Your task to perform on an android device: Open Google Chrome and click the shortcut for Amazon.com Image 0: 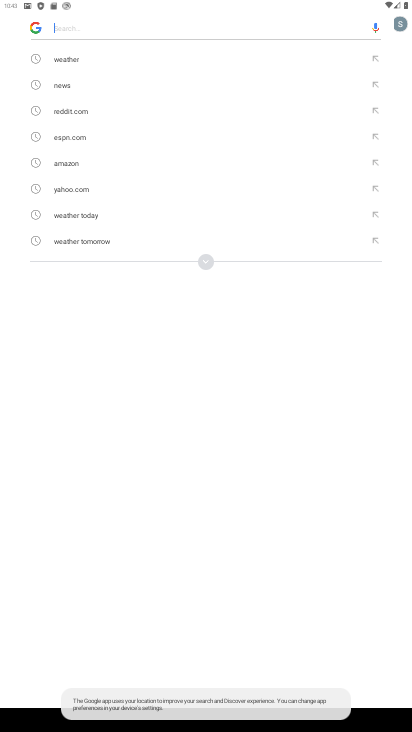
Step 0: press home button
Your task to perform on an android device: Open Google Chrome and click the shortcut for Amazon.com Image 1: 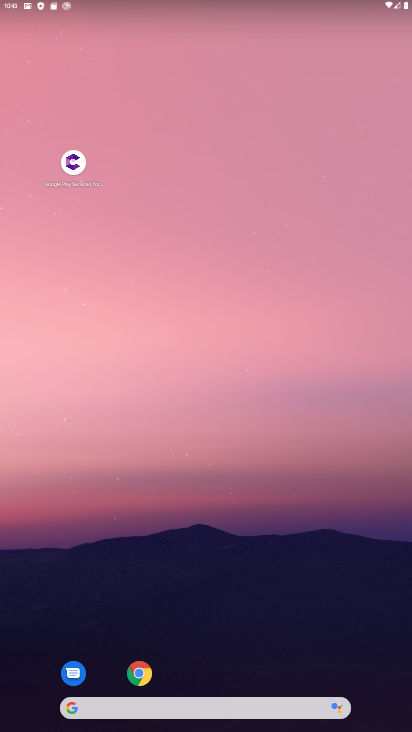
Step 1: drag from (266, 506) to (200, 1)
Your task to perform on an android device: Open Google Chrome and click the shortcut for Amazon.com Image 2: 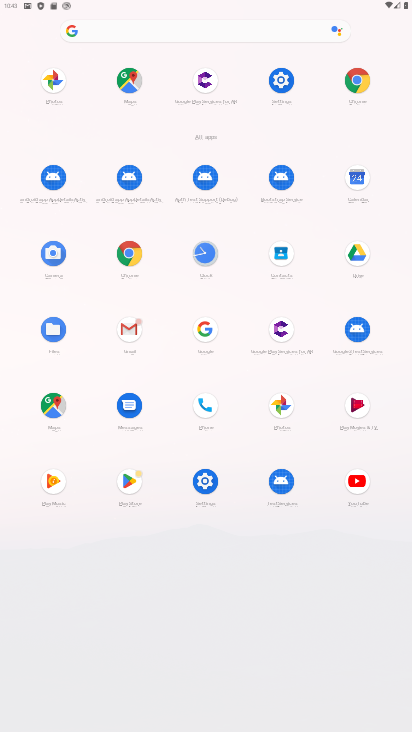
Step 2: click (367, 74)
Your task to perform on an android device: Open Google Chrome and click the shortcut for Amazon.com Image 3: 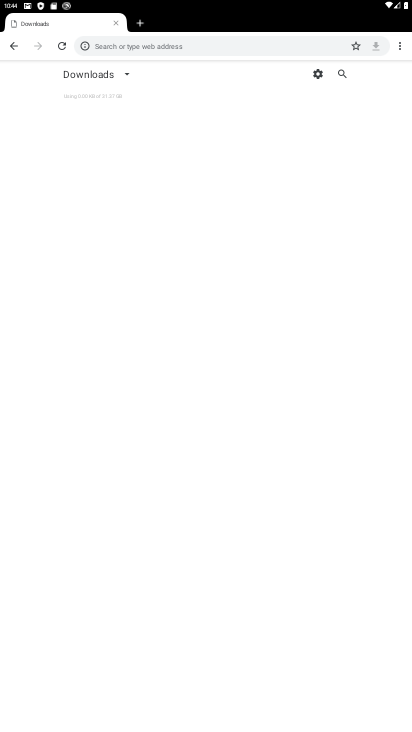
Step 3: click (8, 52)
Your task to perform on an android device: Open Google Chrome and click the shortcut for Amazon.com Image 4: 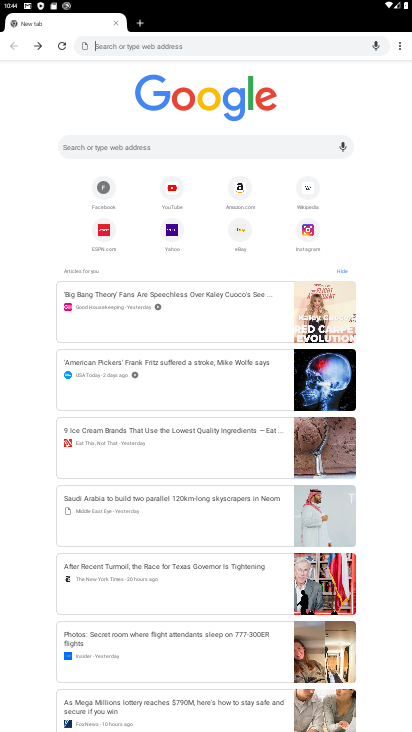
Step 4: click (227, 194)
Your task to perform on an android device: Open Google Chrome and click the shortcut for Amazon.com Image 5: 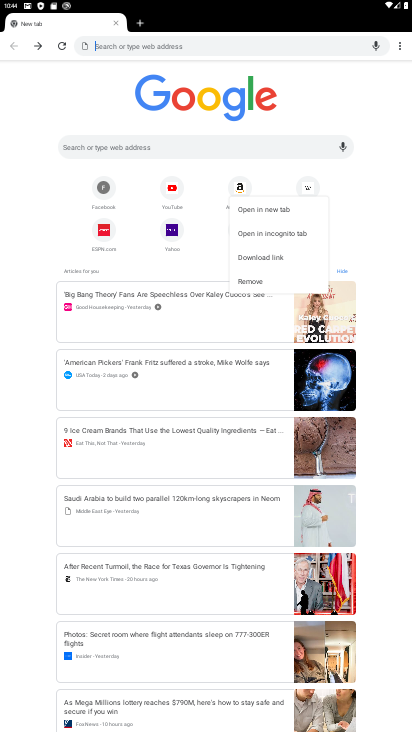
Step 5: click (234, 183)
Your task to perform on an android device: Open Google Chrome and click the shortcut for Amazon.com Image 6: 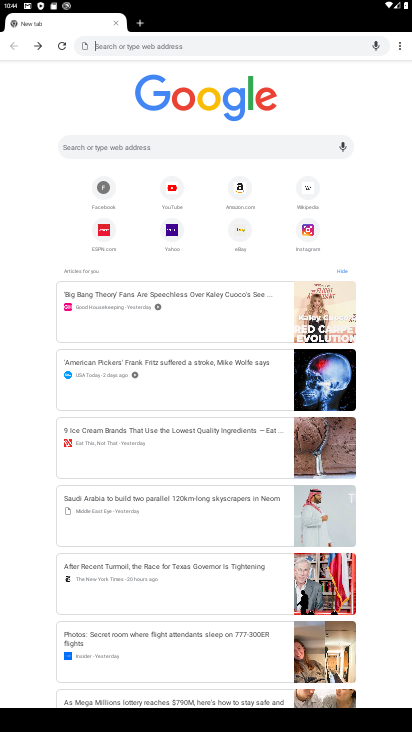
Step 6: click (236, 192)
Your task to perform on an android device: Open Google Chrome and click the shortcut for Amazon.com Image 7: 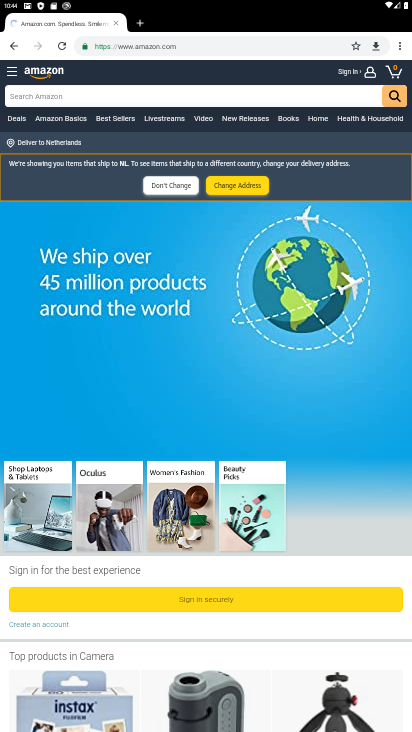
Step 7: drag from (403, 37) to (302, 263)
Your task to perform on an android device: Open Google Chrome and click the shortcut for Amazon.com Image 8: 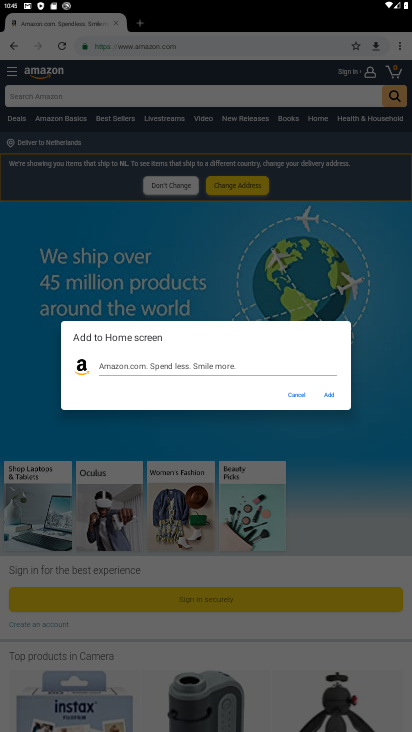
Step 8: click (331, 397)
Your task to perform on an android device: Open Google Chrome and click the shortcut for Amazon.com Image 9: 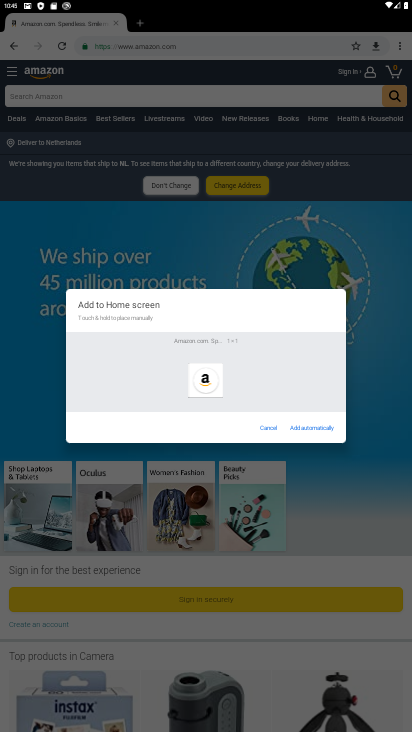
Step 9: click (303, 423)
Your task to perform on an android device: Open Google Chrome and click the shortcut for Amazon.com Image 10: 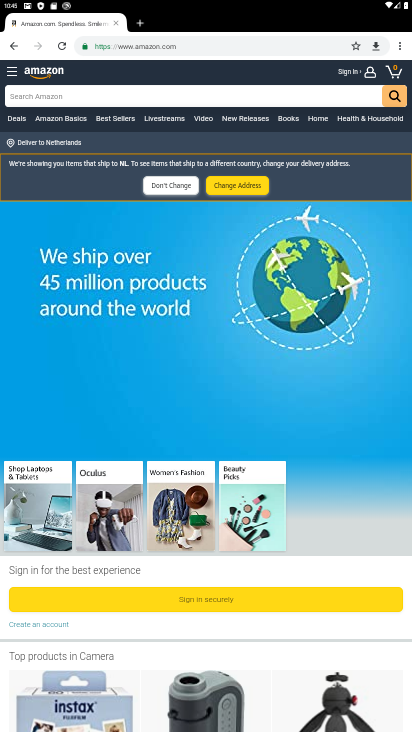
Step 10: task complete